Your task to perform on an android device: What's the weather? Image 0: 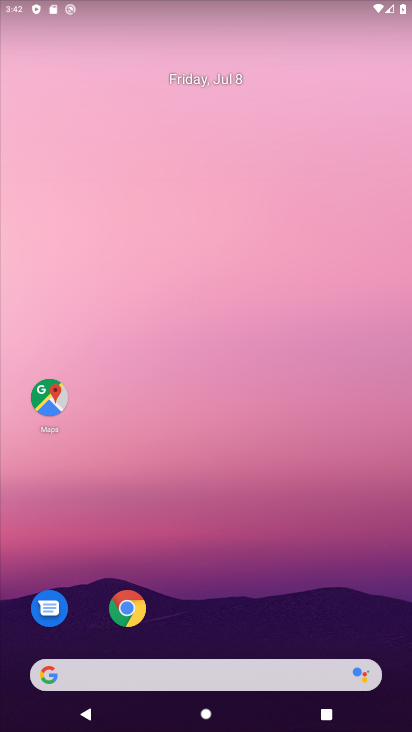
Step 0: drag from (221, 608) to (372, 2)
Your task to perform on an android device: What's the weather? Image 1: 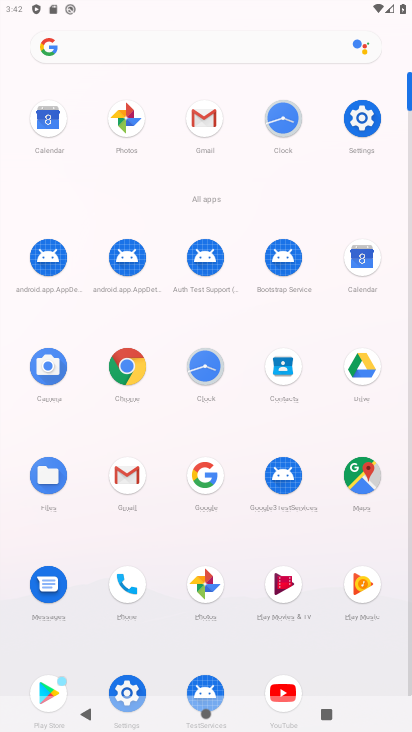
Step 1: click (126, 370)
Your task to perform on an android device: What's the weather? Image 2: 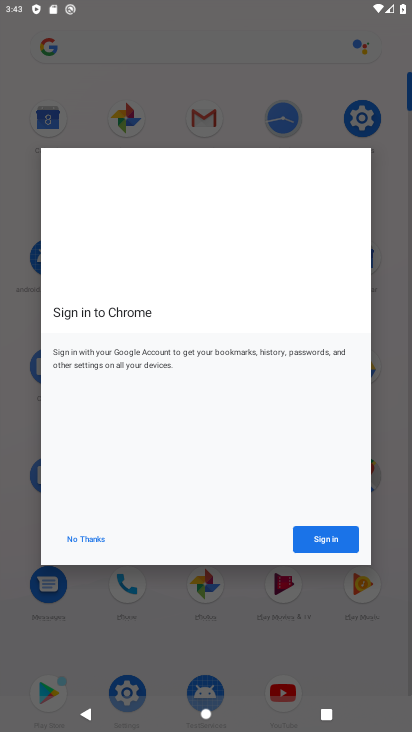
Step 2: task complete